Your task to perform on an android device: Play the last video I watched on Youtube Image 0: 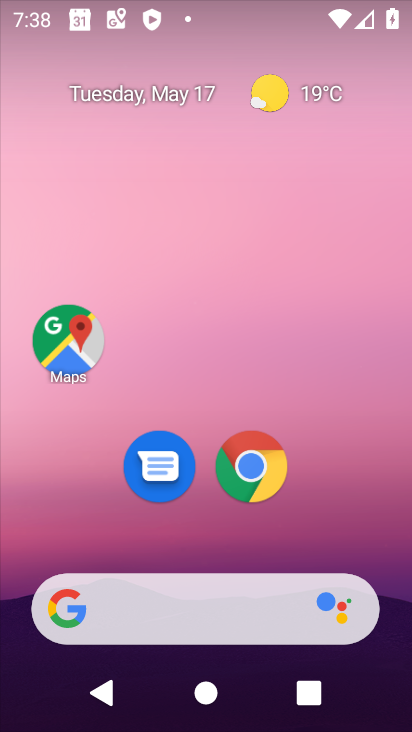
Step 0: drag from (274, 438) to (388, 14)
Your task to perform on an android device: Play the last video I watched on Youtube Image 1: 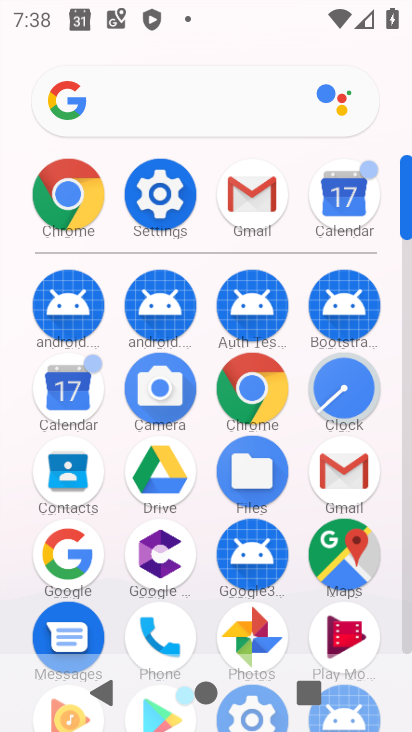
Step 1: drag from (208, 599) to (405, 102)
Your task to perform on an android device: Play the last video I watched on Youtube Image 2: 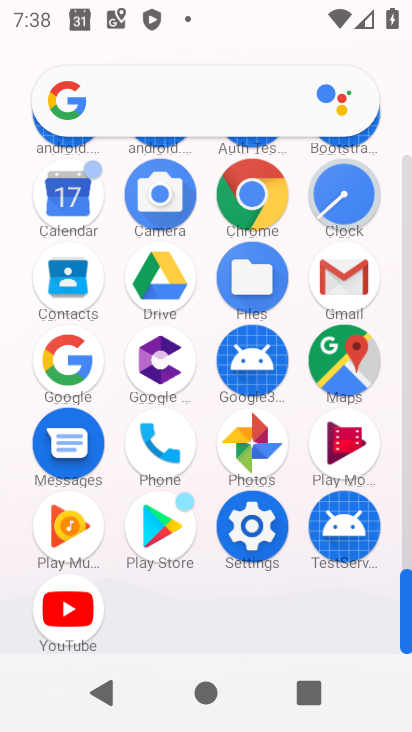
Step 2: click (81, 614)
Your task to perform on an android device: Play the last video I watched on Youtube Image 3: 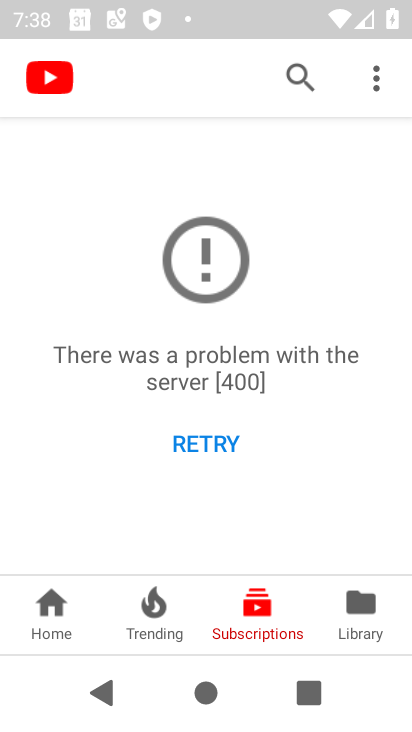
Step 3: click (196, 441)
Your task to perform on an android device: Play the last video I watched on Youtube Image 4: 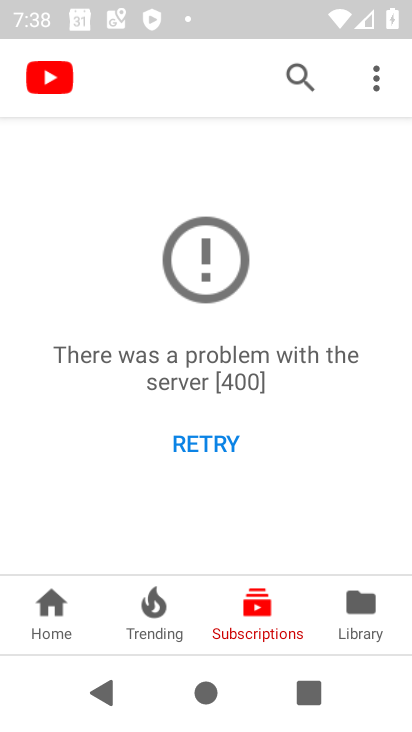
Step 4: click (351, 611)
Your task to perform on an android device: Play the last video I watched on Youtube Image 5: 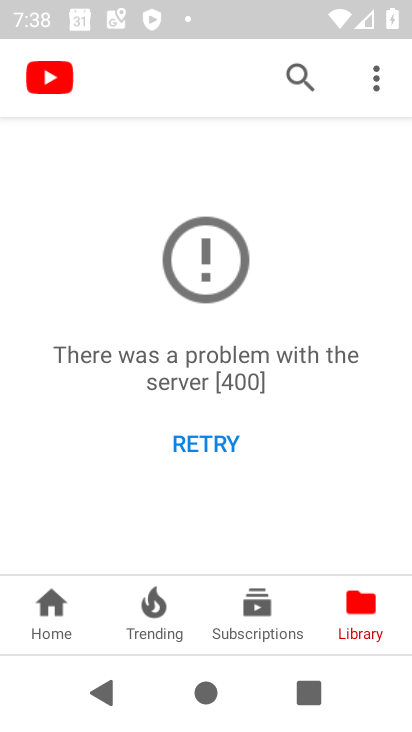
Step 5: click (215, 432)
Your task to perform on an android device: Play the last video I watched on Youtube Image 6: 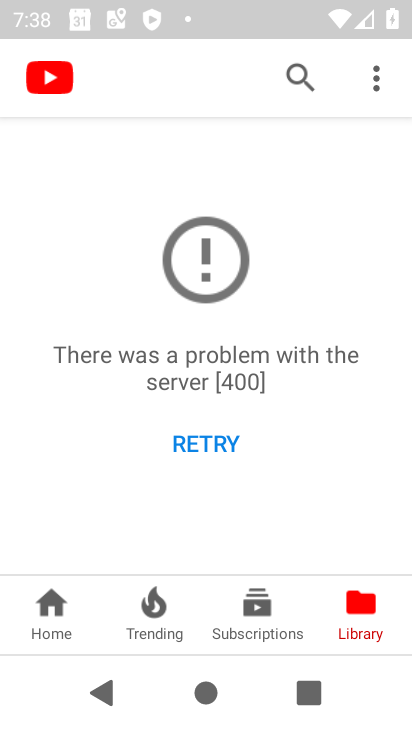
Step 6: click (206, 442)
Your task to perform on an android device: Play the last video I watched on Youtube Image 7: 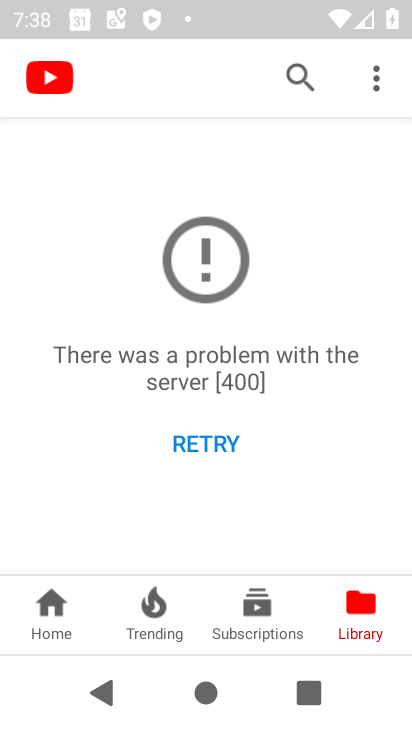
Step 7: task complete